Your task to perform on an android device: set the stopwatch Image 0: 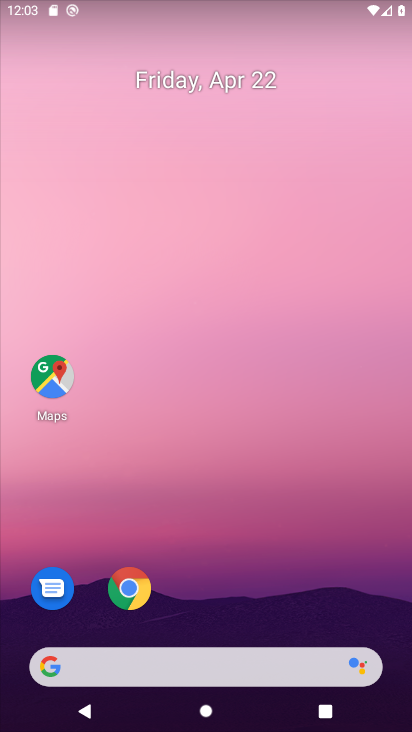
Step 0: drag from (244, 614) to (267, 99)
Your task to perform on an android device: set the stopwatch Image 1: 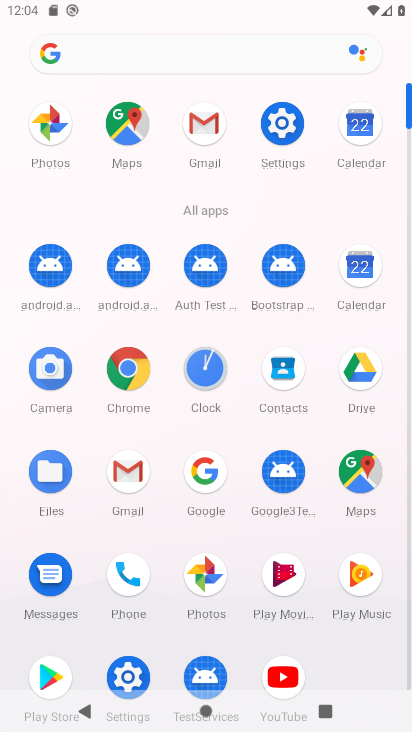
Step 1: click (212, 355)
Your task to perform on an android device: set the stopwatch Image 2: 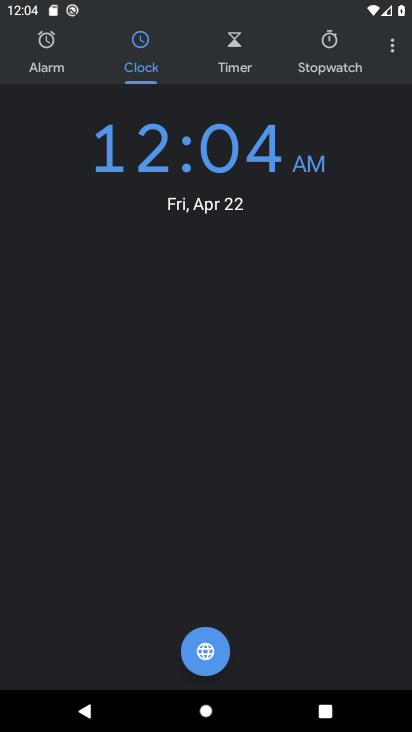
Step 2: click (330, 56)
Your task to perform on an android device: set the stopwatch Image 3: 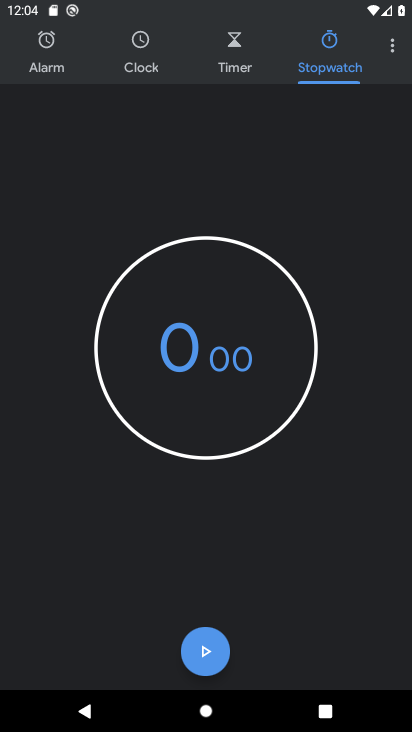
Step 3: click (207, 643)
Your task to perform on an android device: set the stopwatch Image 4: 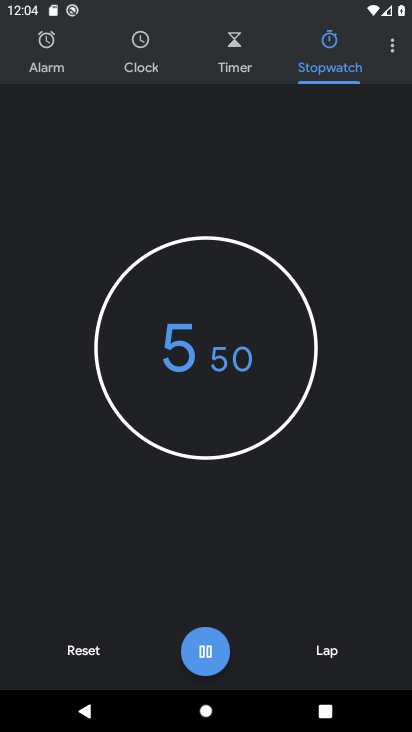
Step 4: task complete